Your task to perform on an android device: What's the weather? Image 0: 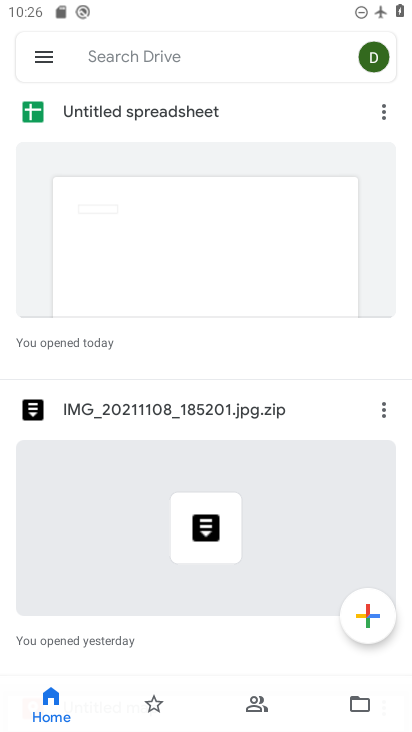
Step 0: drag from (179, 609) to (229, 400)
Your task to perform on an android device: What's the weather? Image 1: 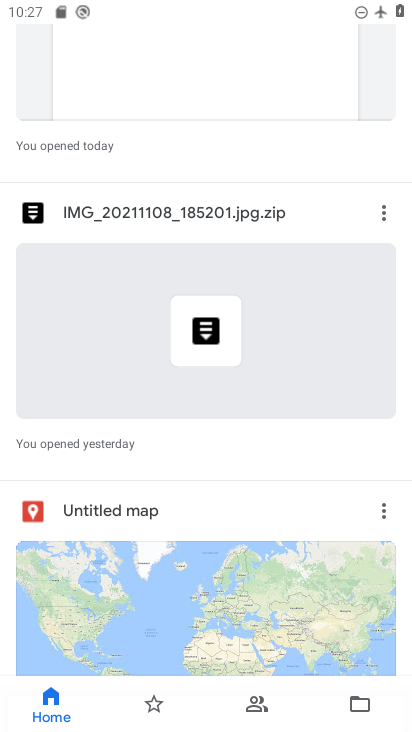
Step 1: press home button
Your task to perform on an android device: What's the weather? Image 2: 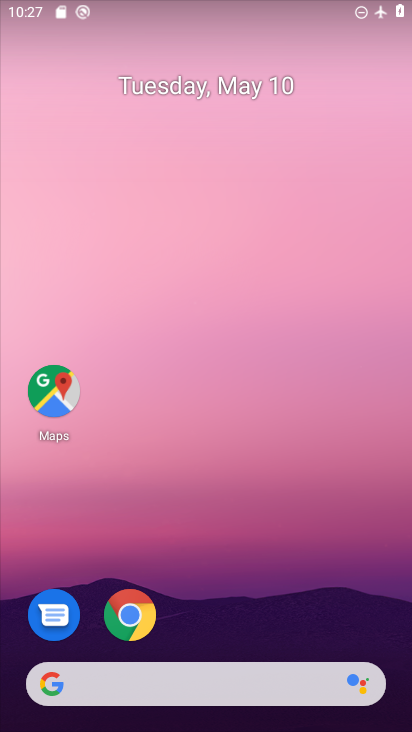
Step 2: drag from (202, 653) to (339, 99)
Your task to perform on an android device: What's the weather? Image 3: 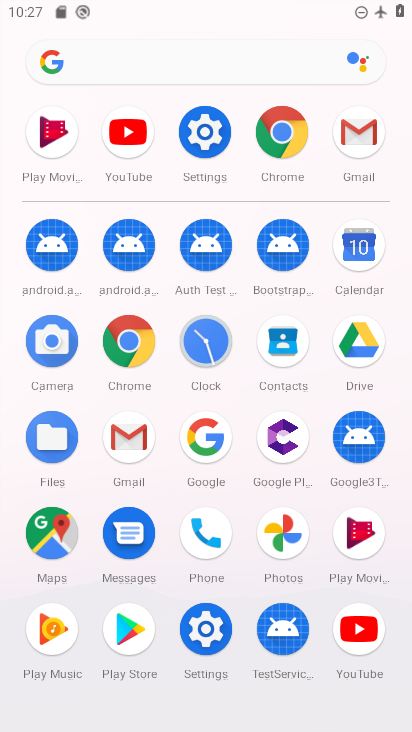
Step 3: click (206, 67)
Your task to perform on an android device: What's the weather? Image 4: 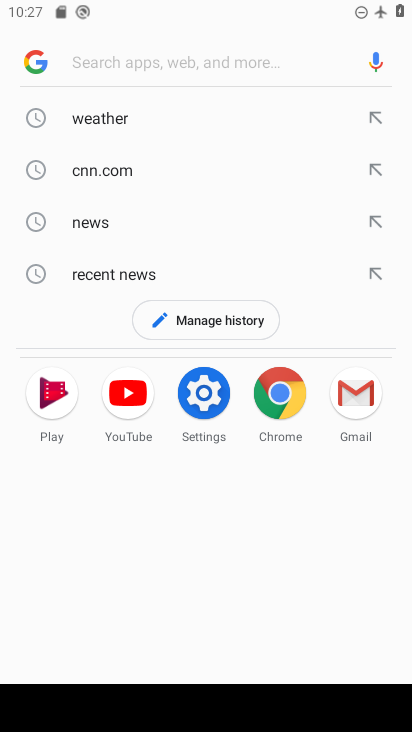
Step 4: click (122, 125)
Your task to perform on an android device: What's the weather? Image 5: 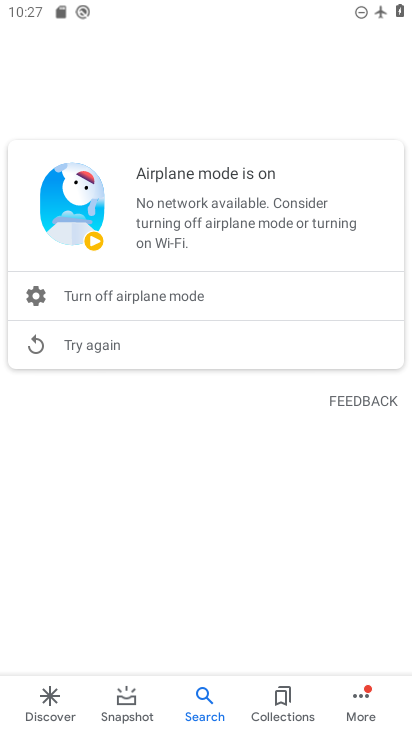
Step 5: task complete